Your task to perform on an android device: turn on the 24-hour format for clock Image 0: 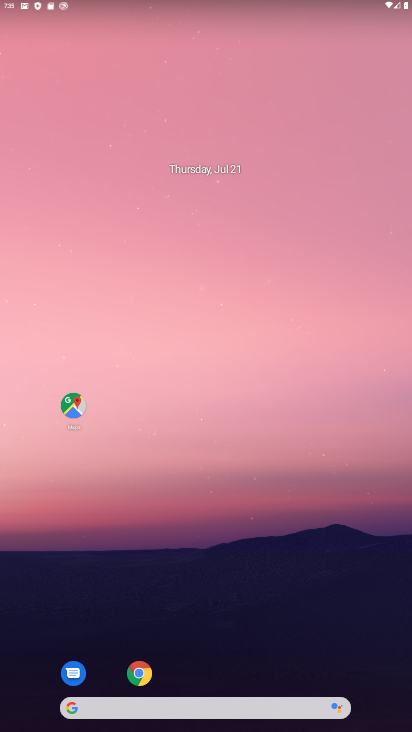
Step 0: drag from (322, 718) to (410, 27)
Your task to perform on an android device: turn on the 24-hour format for clock Image 1: 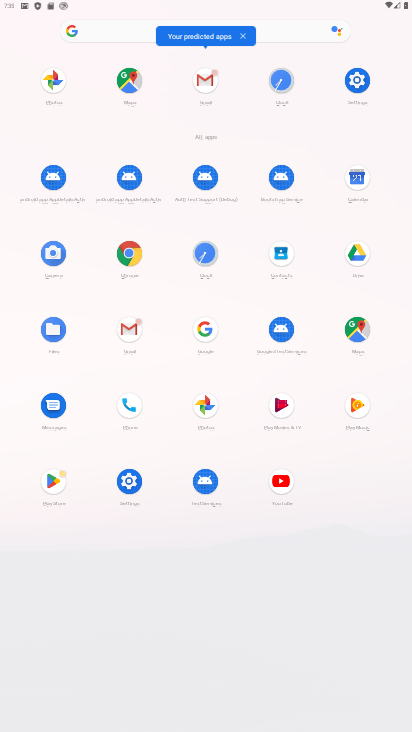
Step 1: click (201, 240)
Your task to perform on an android device: turn on the 24-hour format for clock Image 2: 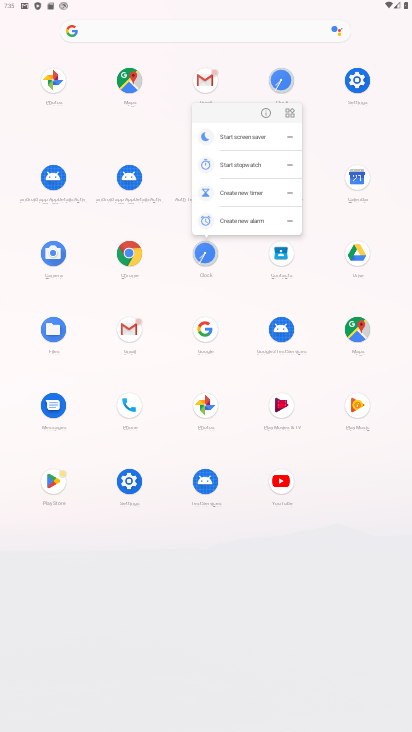
Step 2: click (200, 250)
Your task to perform on an android device: turn on the 24-hour format for clock Image 3: 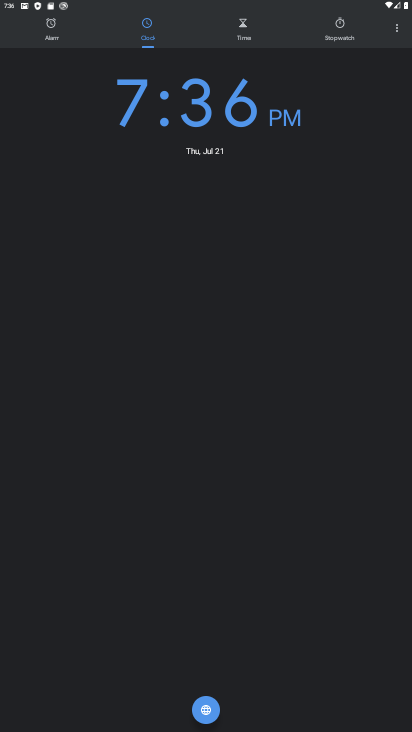
Step 3: click (402, 29)
Your task to perform on an android device: turn on the 24-hour format for clock Image 4: 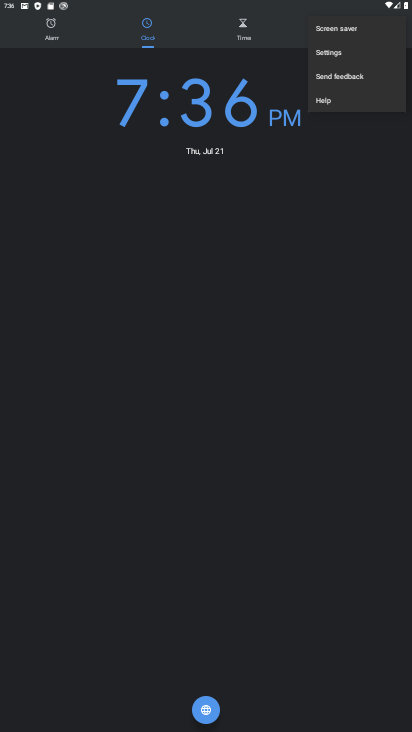
Step 4: click (350, 59)
Your task to perform on an android device: turn on the 24-hour format for clock Image 5: 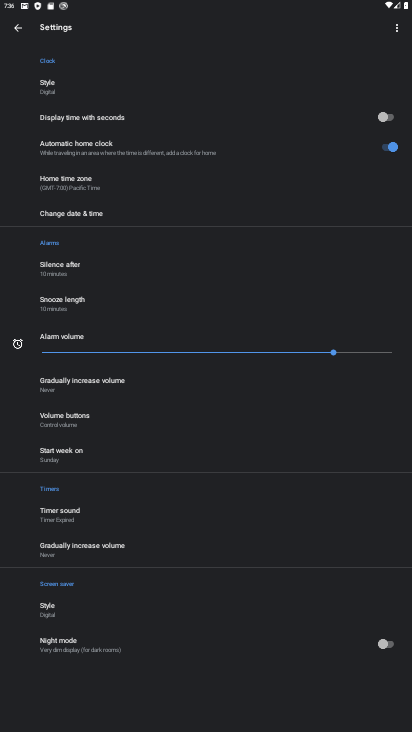
Step 5: click (82, 217)
Your task to perform on an android device: turn on the 24-hour format for clock Image 6: 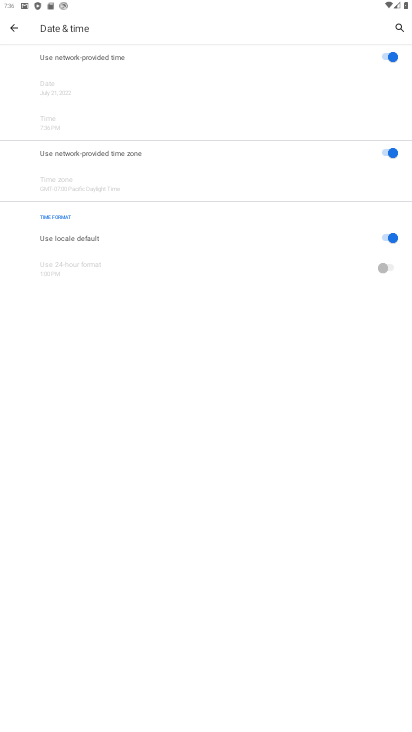
Step 6: click (17, 21)
Your task to perform on an android device: turn on the 24-hour format for clock Image 7: 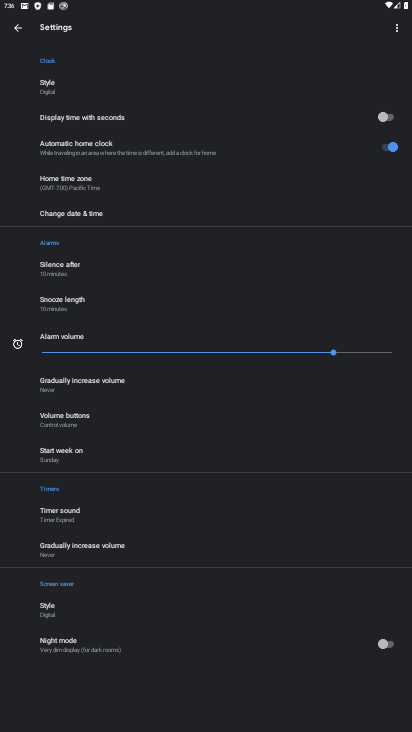
Step 7: click (85, 221)
Your task to perform on an android device: turn on the 24-hour format for clock Image 8: 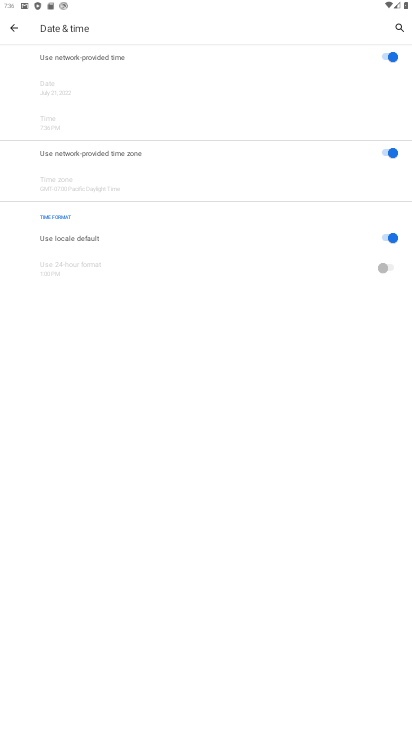
Step 8: click (389, 267)
Your task to perform on an android device: turn on the 24-hour format for clock Image 9: 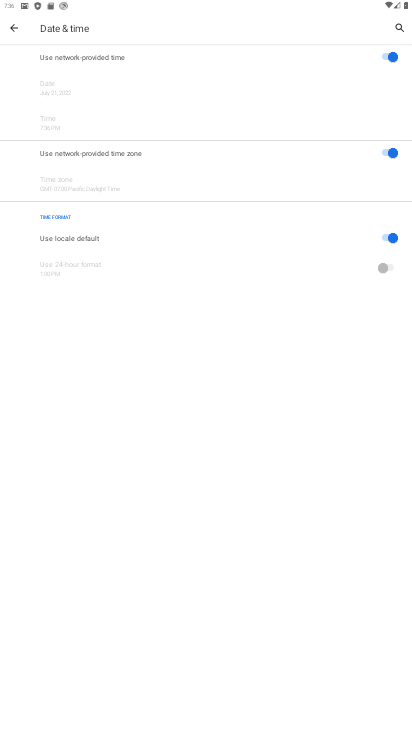
Step 9: click (385, 266)
Your task to perform on an android device: turn on the 24-hour format for clock Image 10: 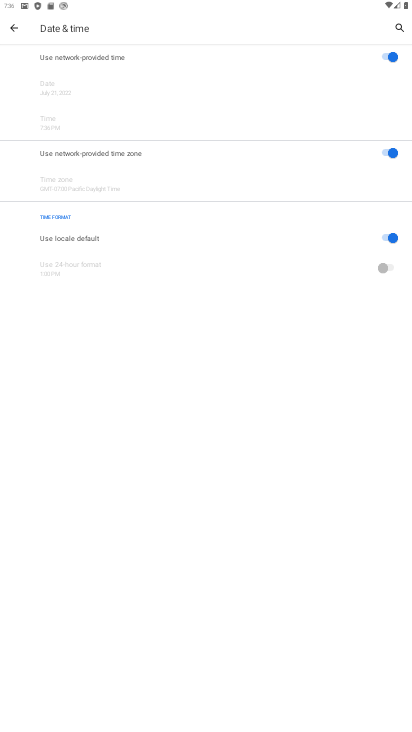
Step 10: click (391, 249)
Your task to perform on an android device: turn on the 24-hour format for clock Image 11: 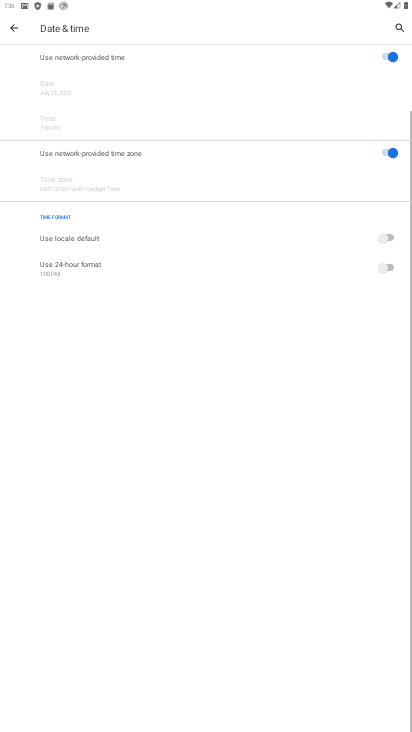
Step 11: click (390, 266)
Your task to perform on an android device: turn on the 24-hour format for clock Image 12: 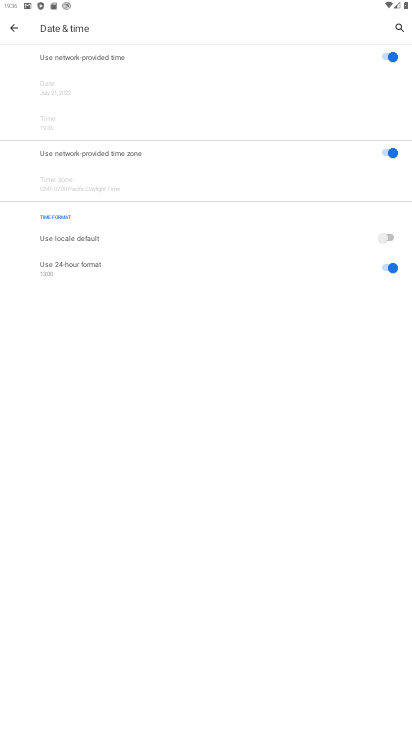
Step 12: task complete